Your task to perform on an android device: toggle notification dots Image 0: 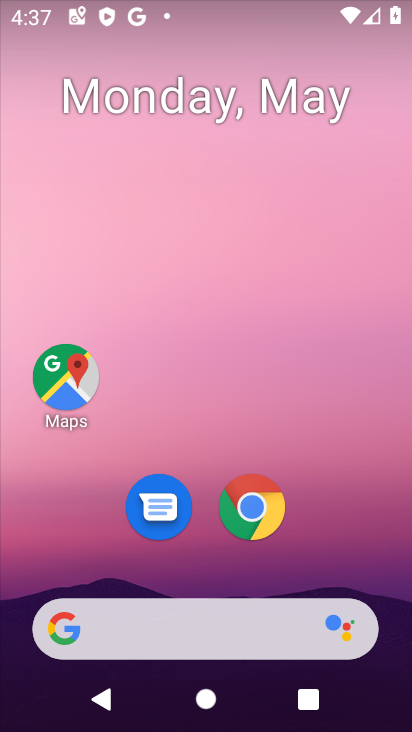
Step 0: drag from (322, 553) to (398, 66)
Your task to perform on an android device: toggle notification dots Image 1: 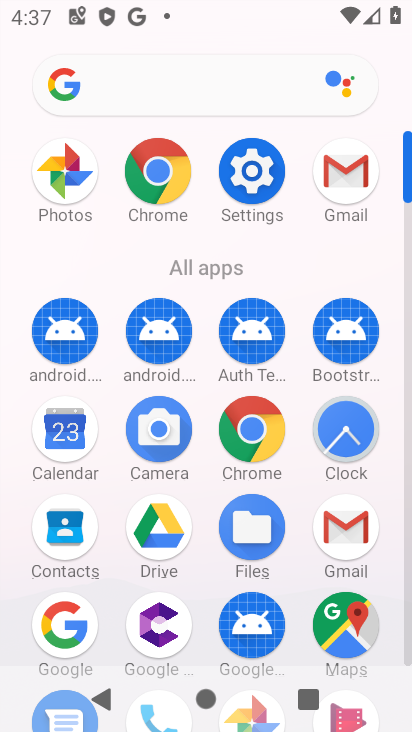
Step 1: click (271, 161)
Your task to perform on an android device: toggle notification dots Image 2: 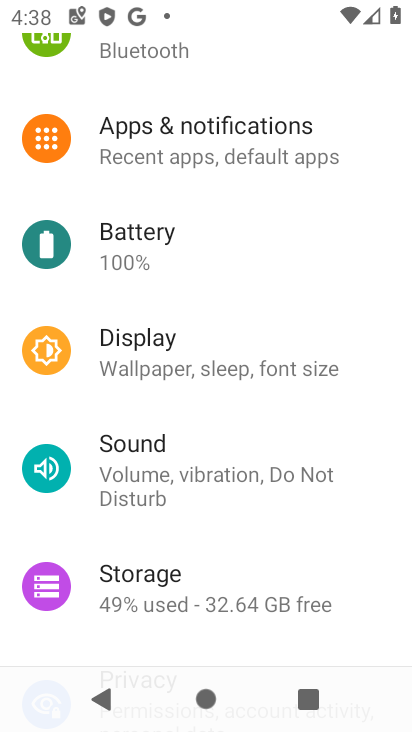
Step 2: click (226, 164)
Your task to perform on an android device: toggle notification dots Image 3: 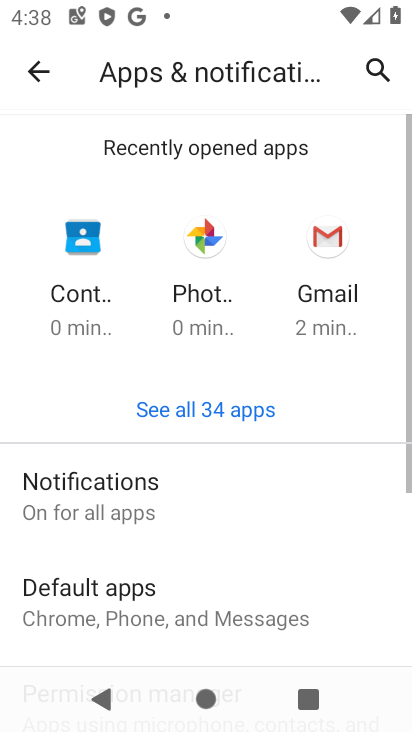
Step 3: click (112, 522)
Your task to perform on an android device: toggle notification dots Image 4: 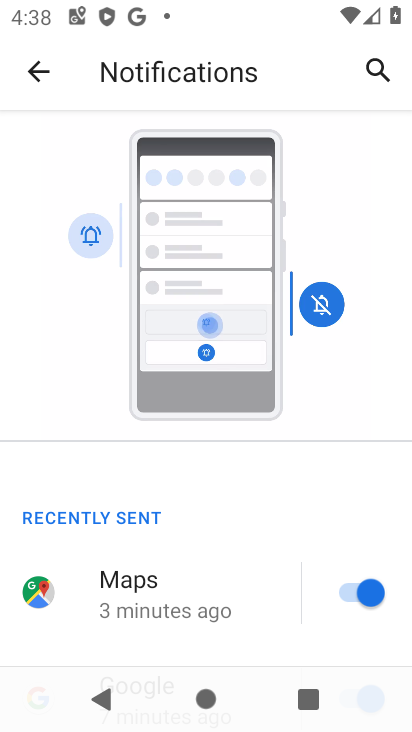
Step 4: drag from (197, 605) to (237, 50)
Your task to perform on an android device: toggle notification dots Image 5: 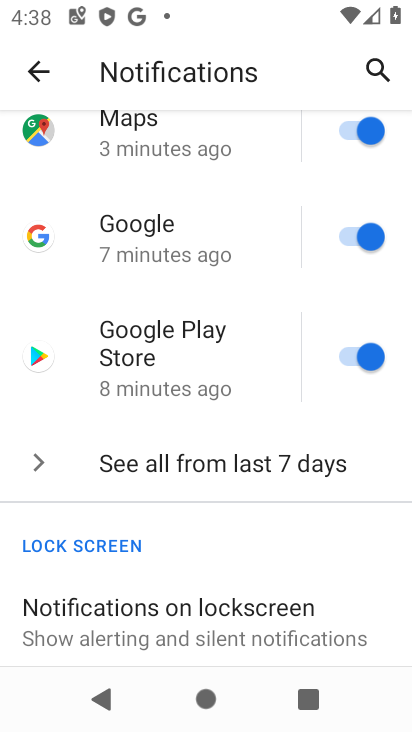
Step 5: click (171, 469)
Your task to perform on an android device: toggle notification dots Image 6: 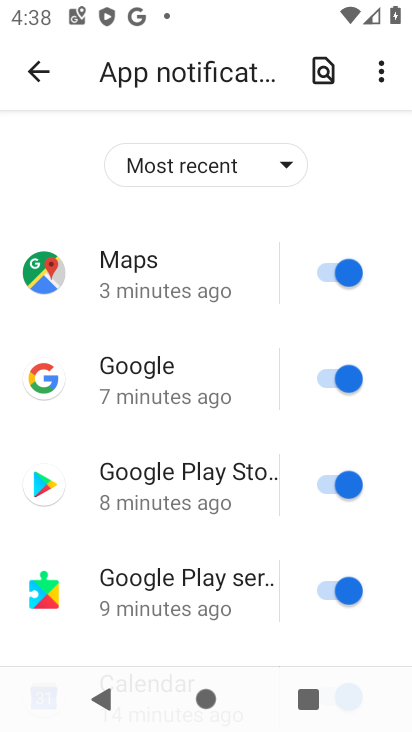
Step 6: drag from (195, 542) to (164, 134)
Your task to perform on an android device: toggle notification dots Image 7: 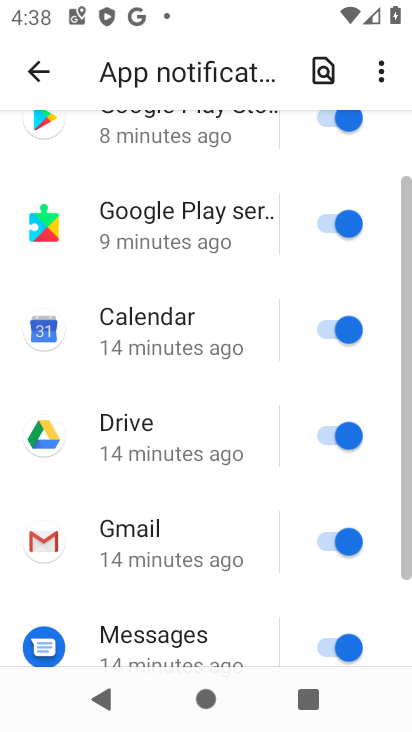
Step 7: click (40, 70)
Your task to perform on an android device: toggle notification dots Image 8: 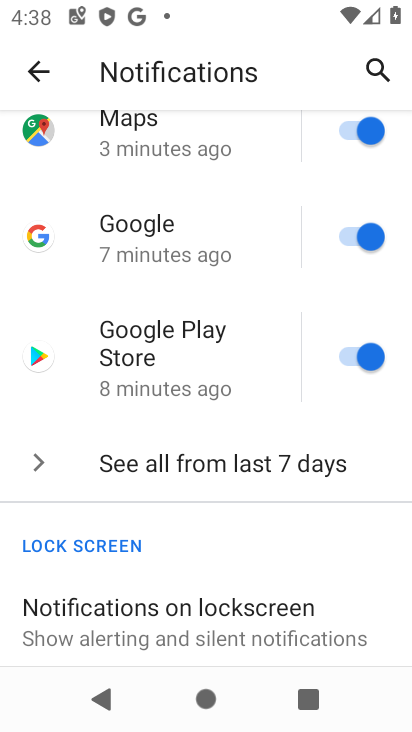
Step 8: drag from (205, 594) to (222, 224)
Your task to perform on an android device: toggle notification dots Image 9: 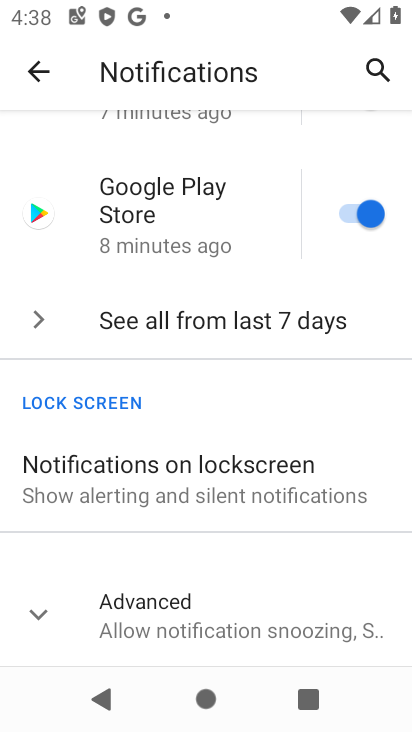
Step 9: click (161, 600)
Your task to perform on an android device: toggle notification dots Image 10: 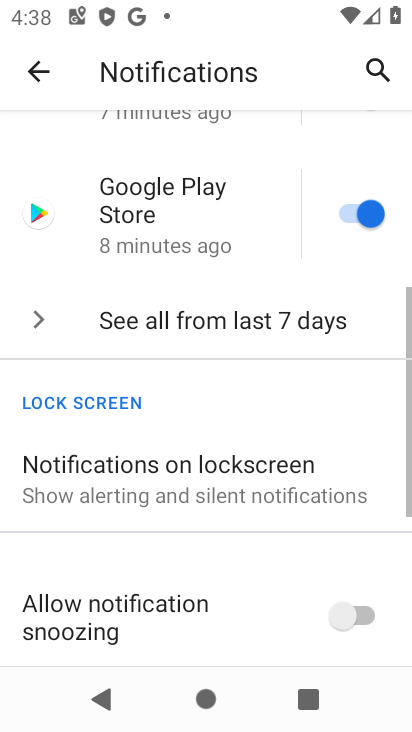
Step 10: drag from (167, 585) to (207, 219)
Your task to perform on an android device: toggle notification dots Image 11: 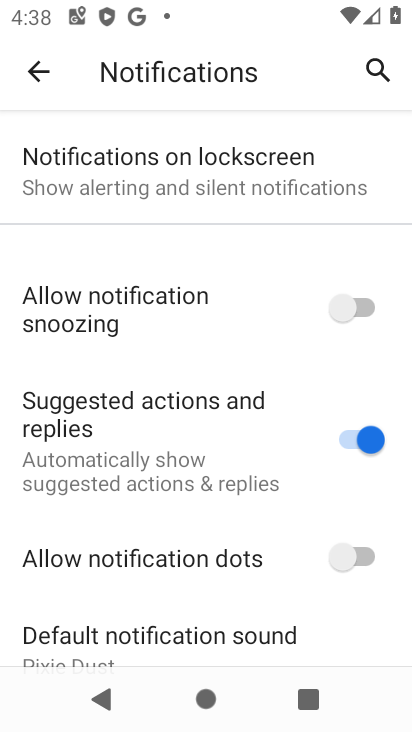
Step 11: click (352, 572)
Your task to perform on an android device: toggle notification dots Image 12: 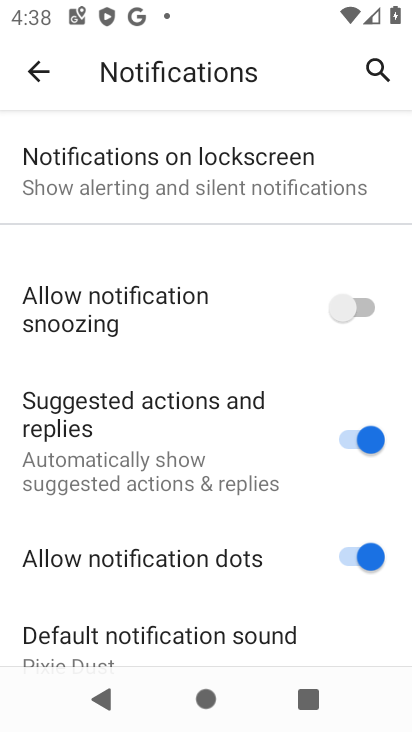
Step 12: task complete